Your task to perform on an android device: clear history in the chrome app Image 0: 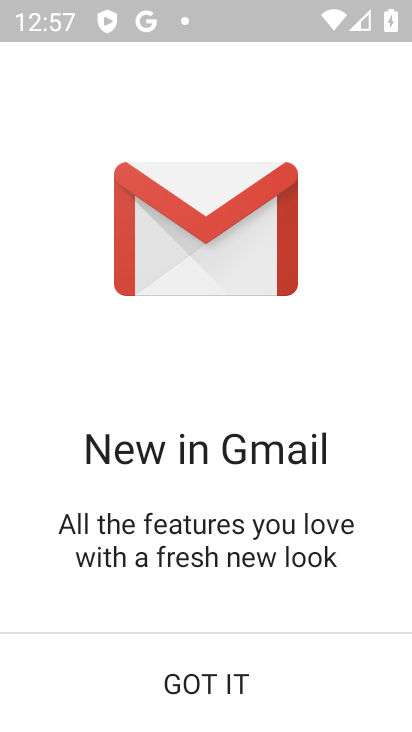
Step 0: press home button
Your task to perform on an android device: clear history in the chrome app Image 1: 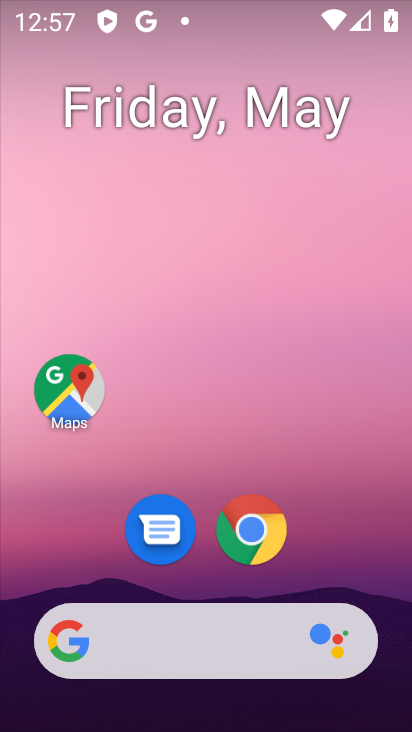
Step 1: click (260, 533)
Your task to perform on an android device: clear history in the chrome app Image 2: 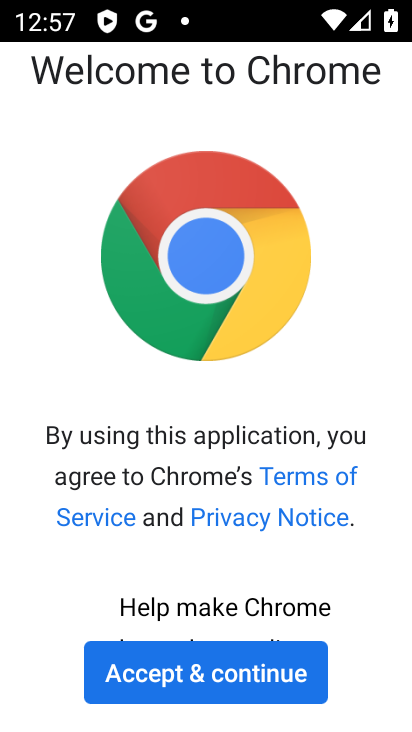
Step 2: click (280, 664)
Your task to perform on an android device: clear history in the chrome app Image 3: 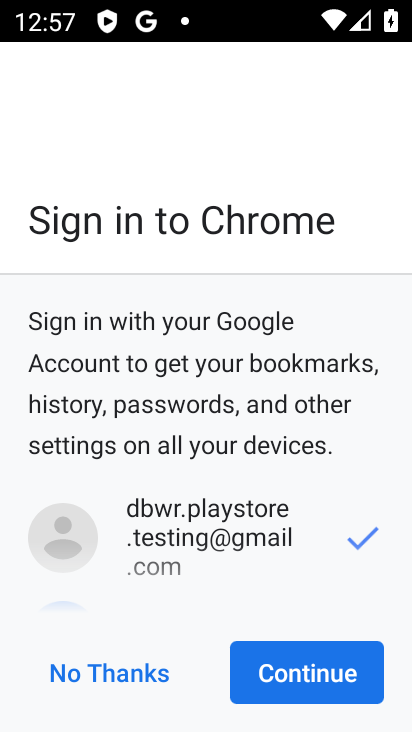
Step 3: click (323, 663)
Your task to perform on an android device: clear history in the chrome app Image 4: 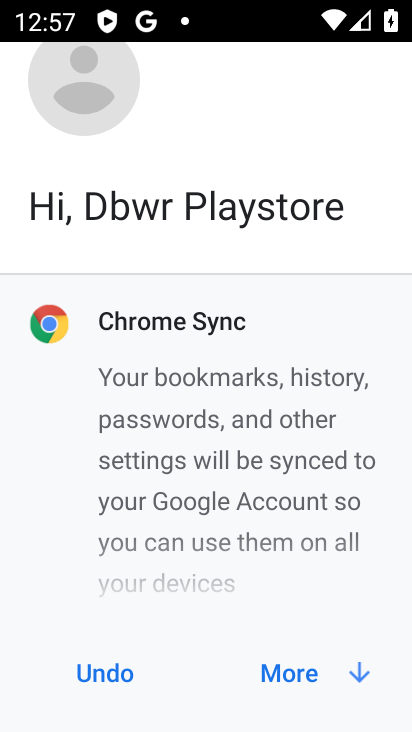
Step 4: click (324, 669)
Your task to perform on an android device: clear history in the chrome app Image 5: 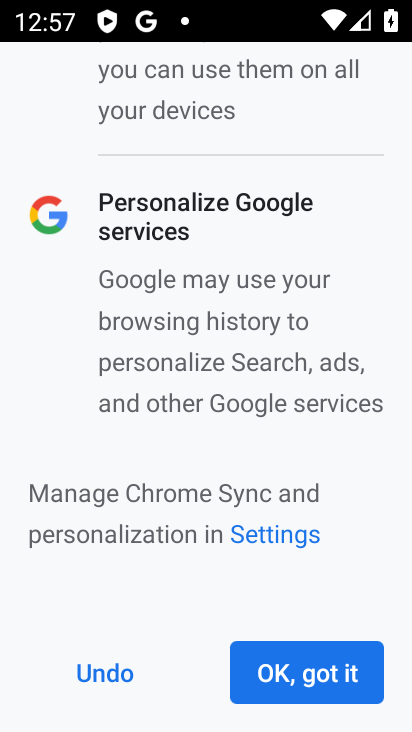
Step 5: click (326, 672)
Your task to perform on an android device: clear history in the chrome app Image 6: 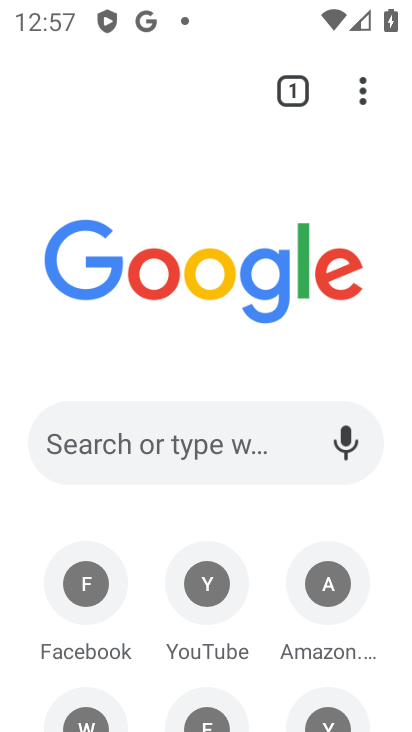
Step 6: task complete